Your task to perform on an android device: install app "eBay: The shopping marketplace" Image 0: 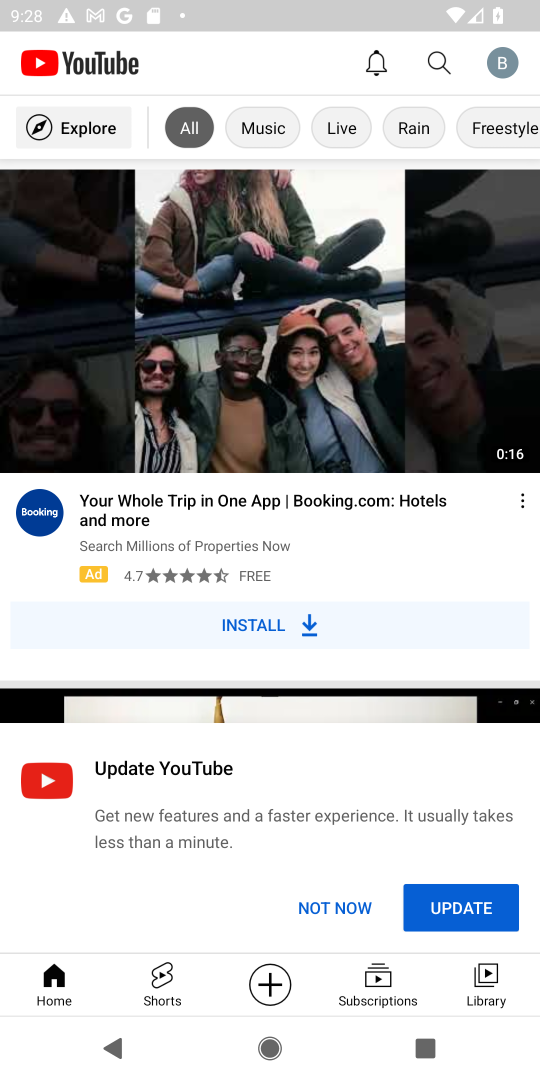
Step 0: press home button
Your task to perform on an android device: install app "eBay: The shopping marketplace" Image 1: 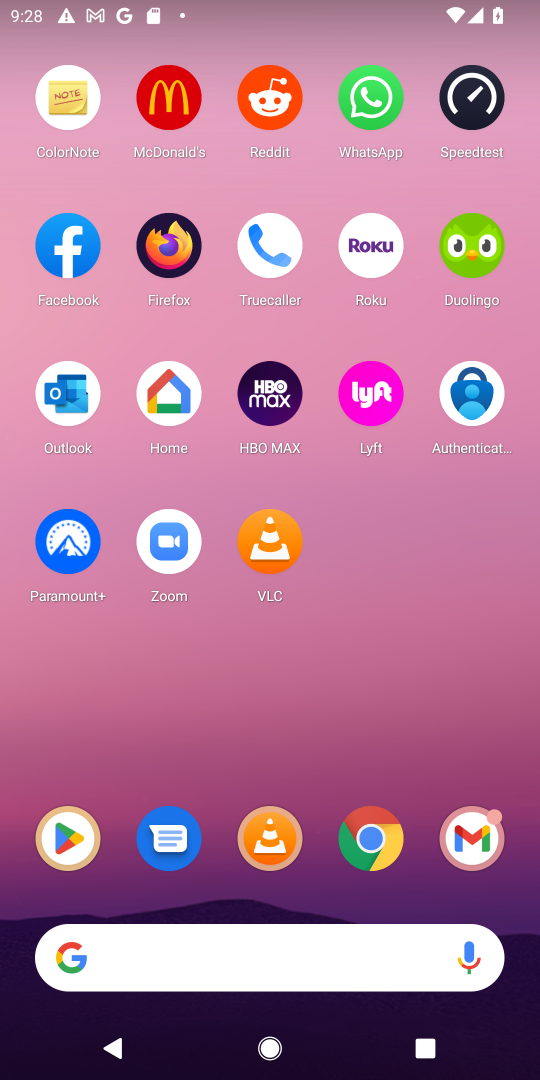
Step 1: drag from (314, 728) to (323, 67)
Your task to perform on an android device: install app "eBay: The shopping marketplace" Image 2: 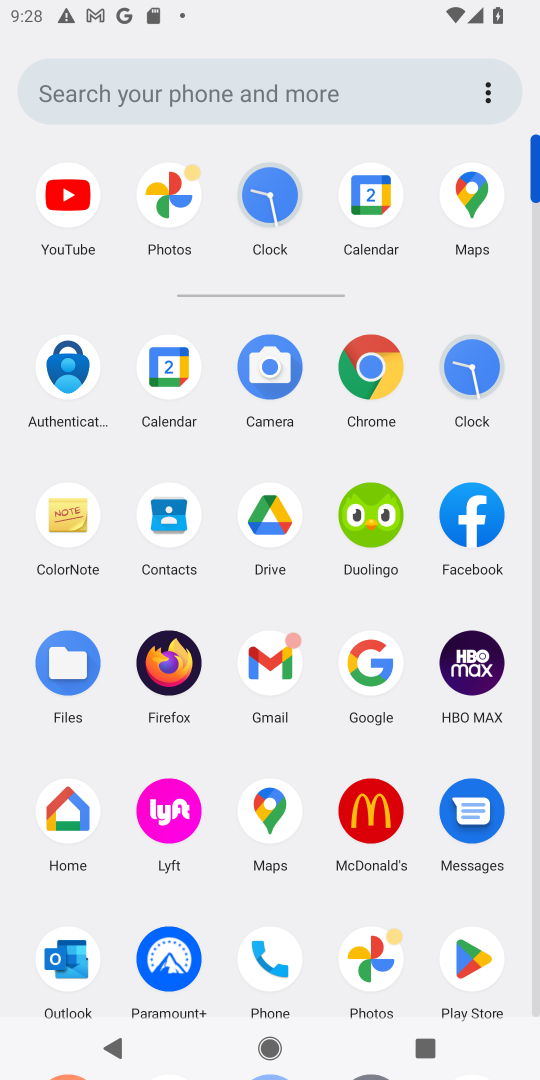
Step 2: click (467, 952)
Your task to perform on an android device: install app "eBay: The shopping marketplace" Image 3: 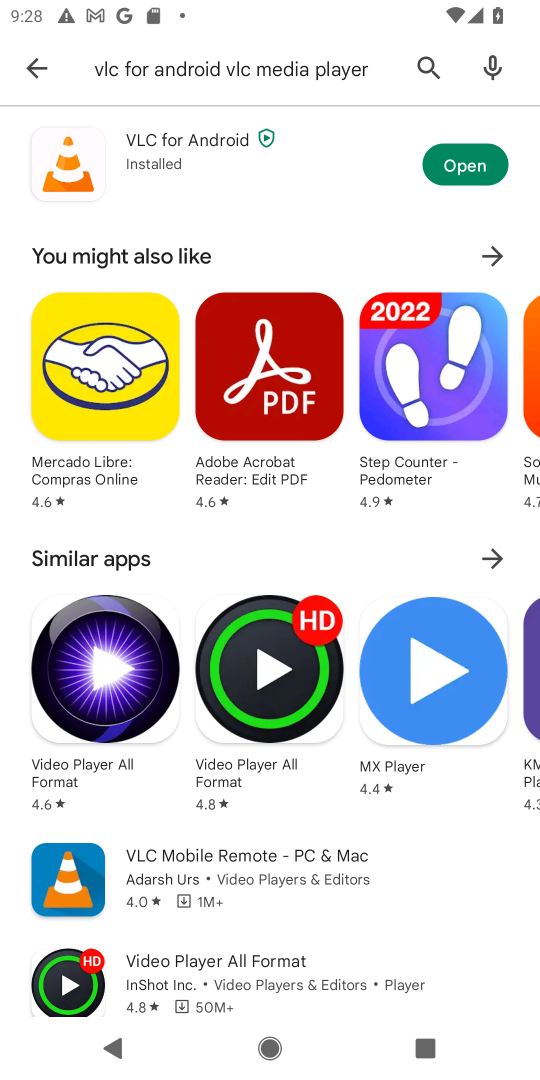
Step 3: click (421, 67)
Your task to perform on an android device: install app "eBay: The shopping marketplace" Image 4: 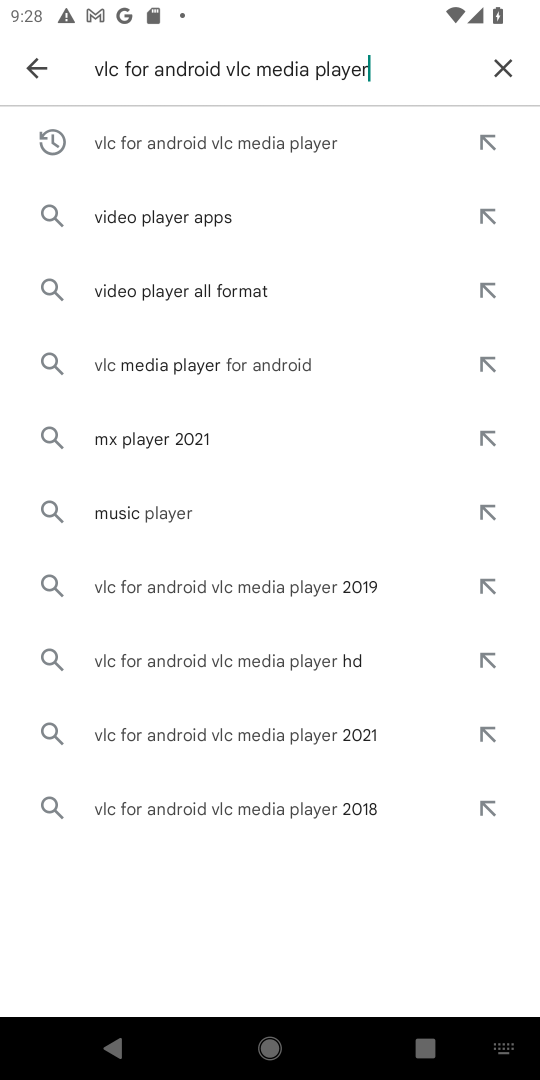
Step 4: click (502, 67)
Your task to perform on an android device: install app "eBay: The shopping marketplace" Image 5: 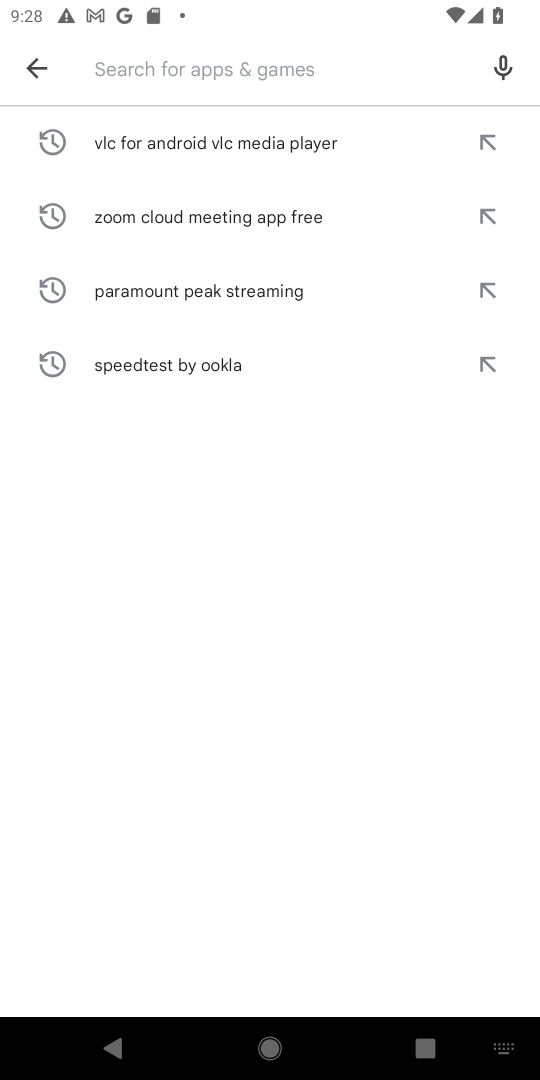
Step 5: click (370, 81)
Your task to perform on an android device: install app "eBay: The shopping marketplace" Image 6: 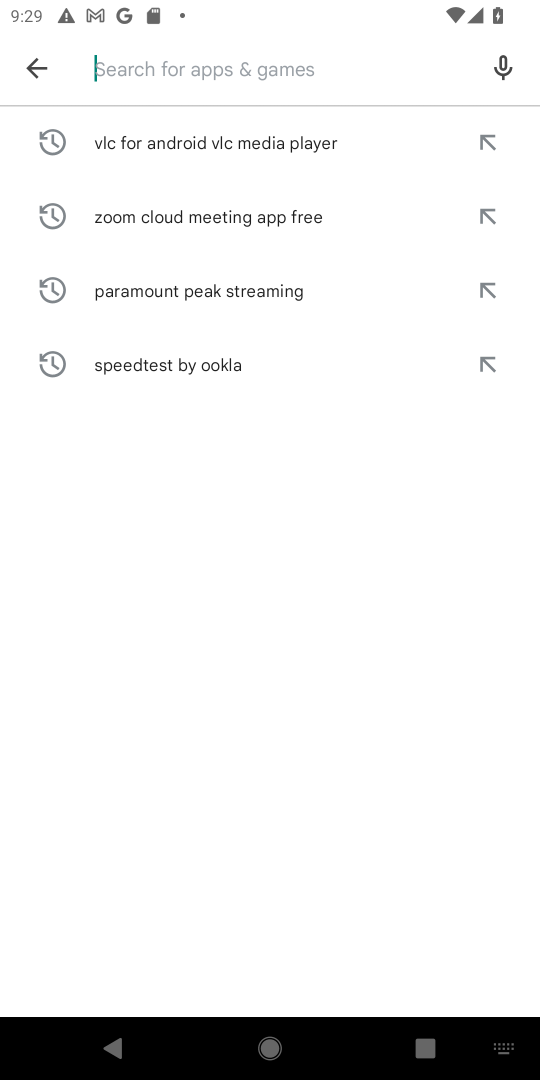
Step 6: type "eBay: The shopping marketplace"
Your task to perform on an android device: install app "eBay: The shopping marketplace" Image 7: 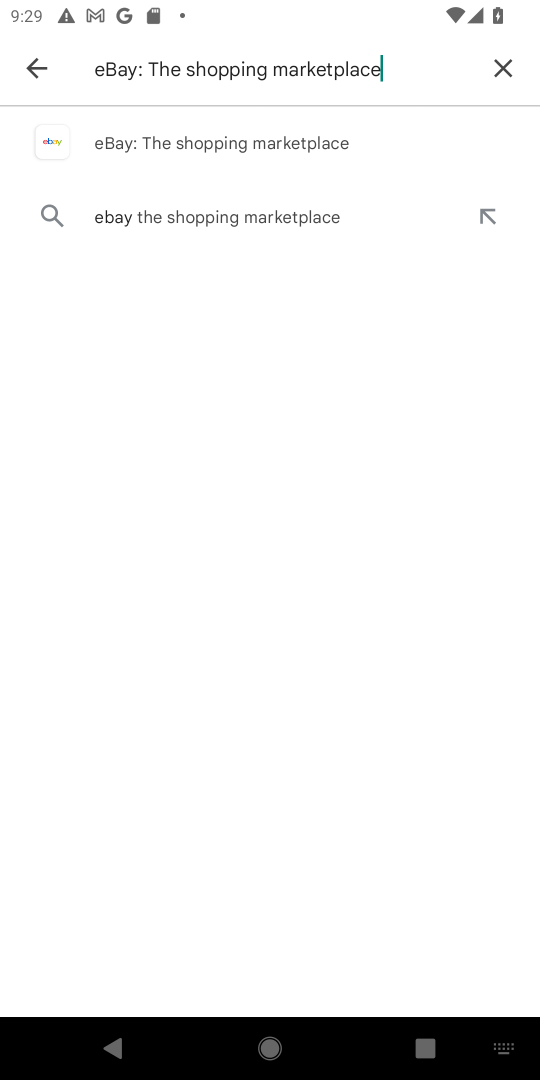
Step 7: click (318, 138)
Your task to perform on an android device: install app "eBay: The shopping marketplace" Image 8: 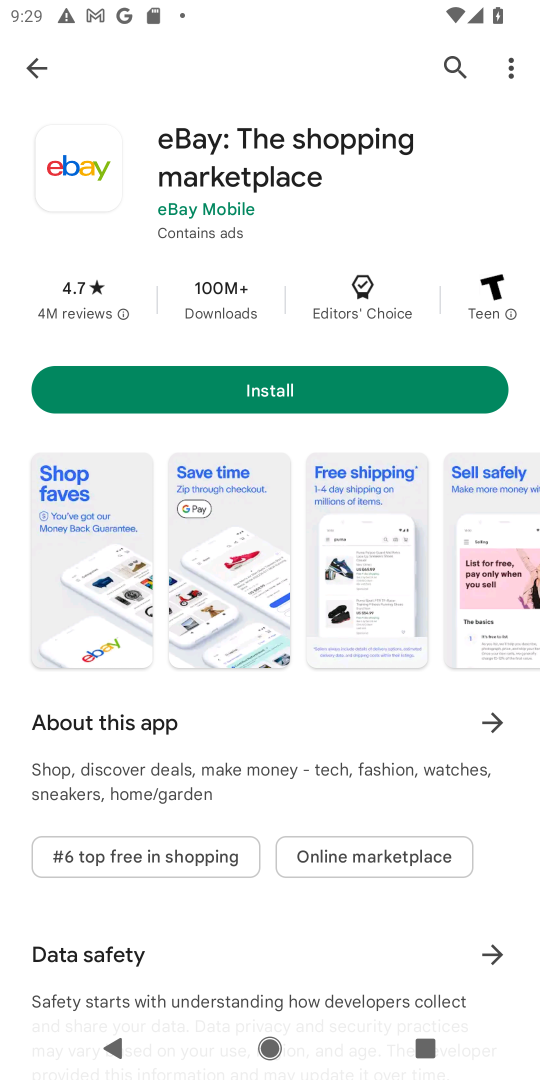
Step 8: click (358, 394)
Your task to perform on an android device: install app "eBay: The shopping marketplace" Image 9: 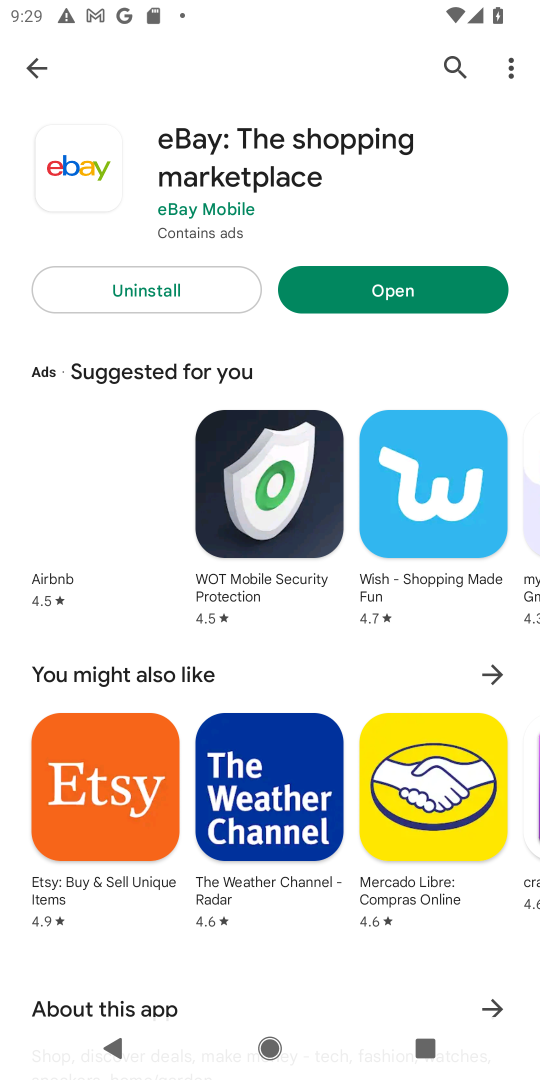
Step 9: task complete